Your task to perform on an android device: When is my next meeting? Image 0: 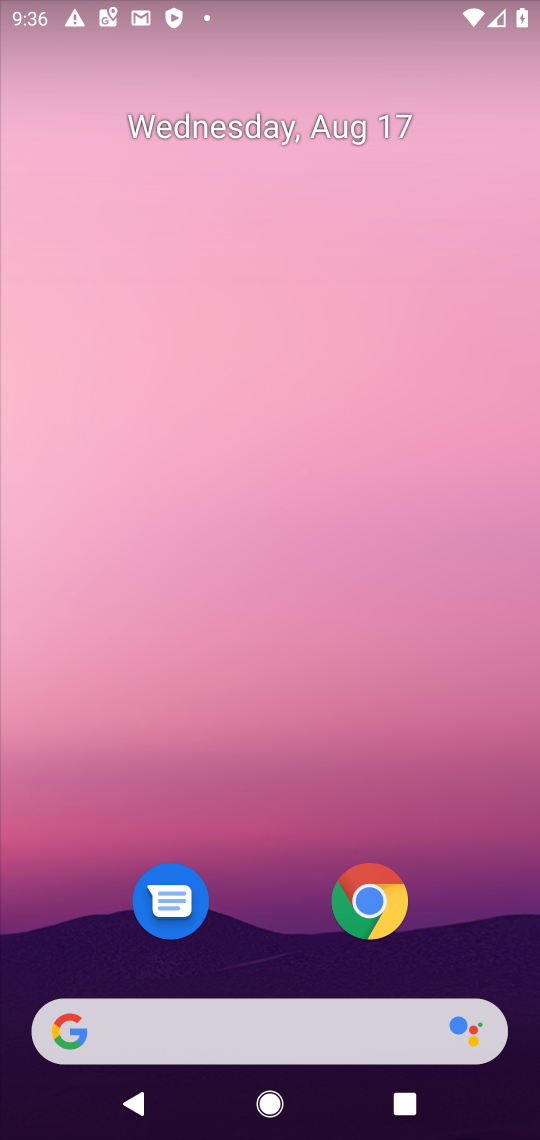
Step 0: click (318, 130)
Your task to perform on an android device: When is my next meeting? Image 1: 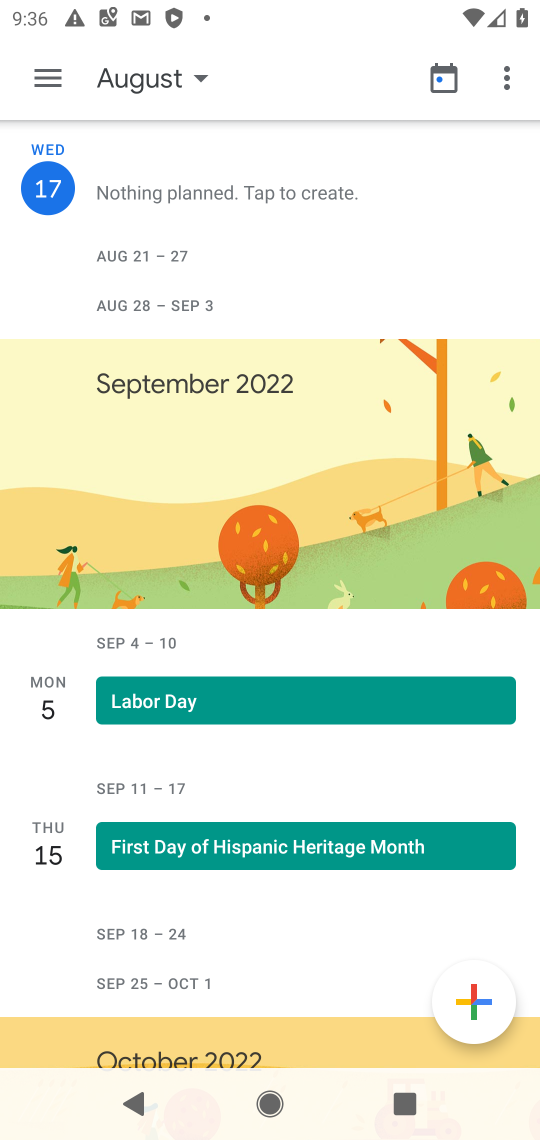
Step 1: click (47, 87)
Your task to perform on an android device: When is my next meeting? Image 2: 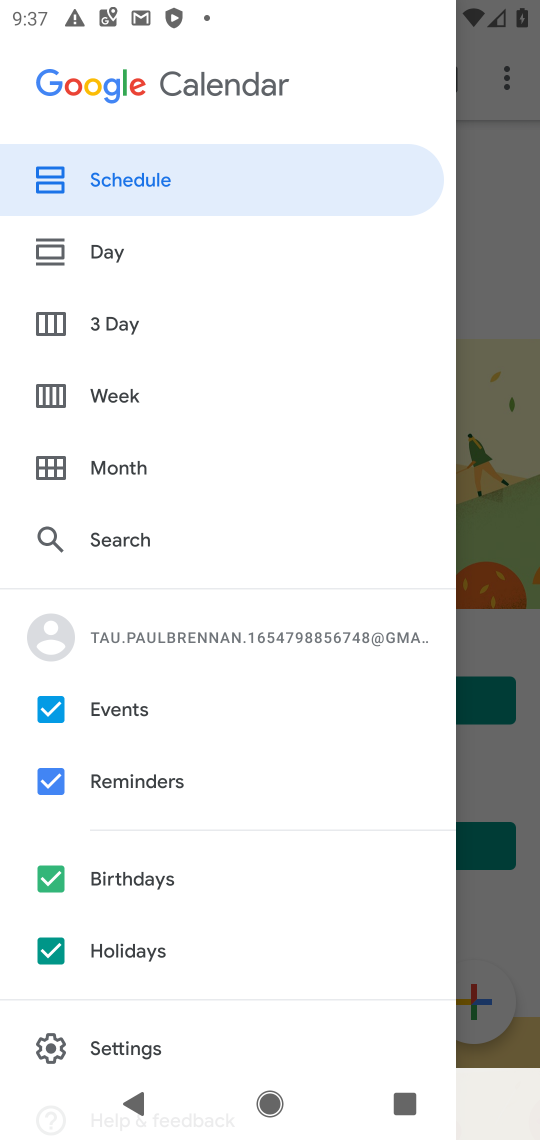
Step 2: click (117, 401)
Your task to perform on an android device: When is my next meeting? Image 3: 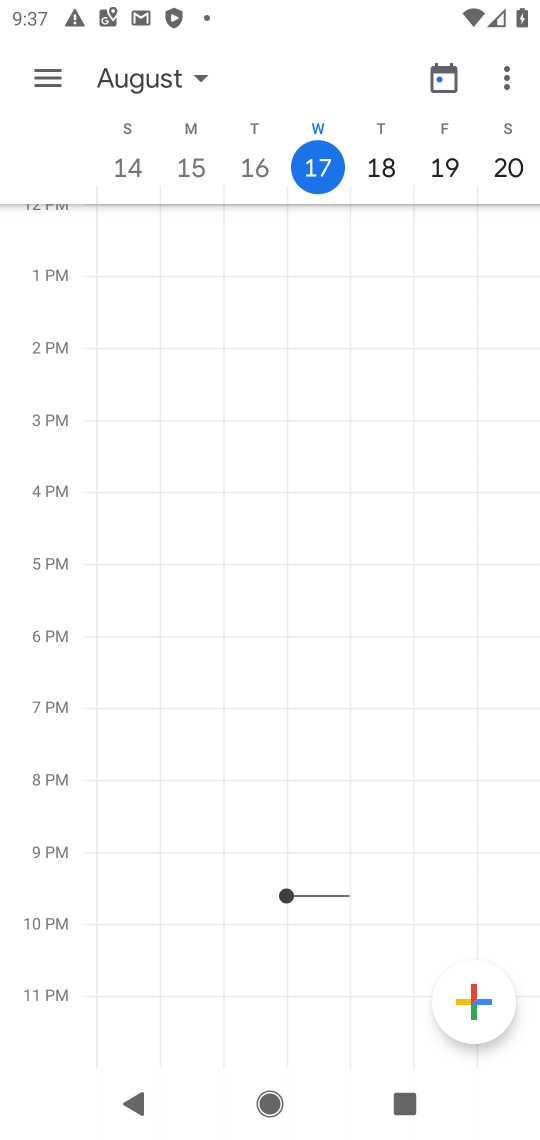
Step 3: task complete